Your task to perform on an android device: turn on priority inbox in the gmail app Image 0: 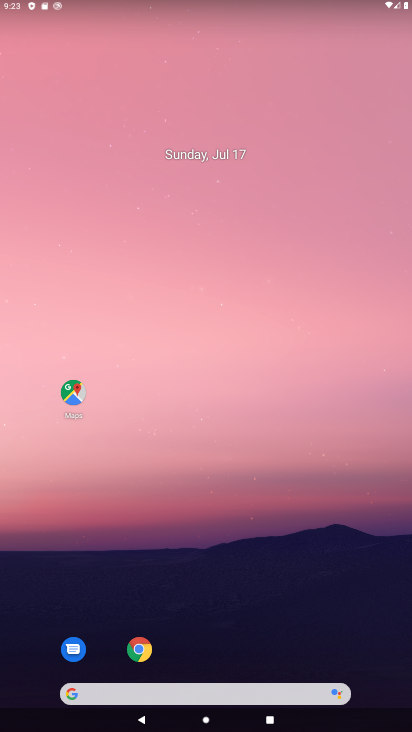
Step 0: drag from (49, 601) to (187, 228)
Your task to perform on an android device: turn on priority inbox in the gmail app Image 1: 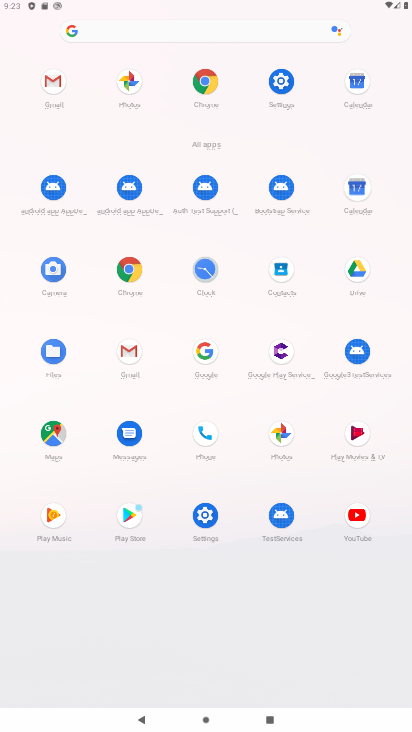
Step 1: click (121, 343)
Your task to perform on an android device: turn on priority inbox in the gmail app Image 2: 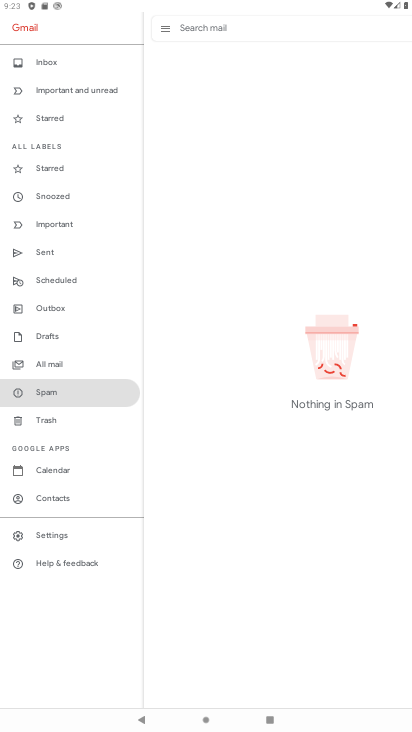
Step 2: click (75, 65)
Your task to perform on an android device: turn on priority inbox in the gmail app Image 3: 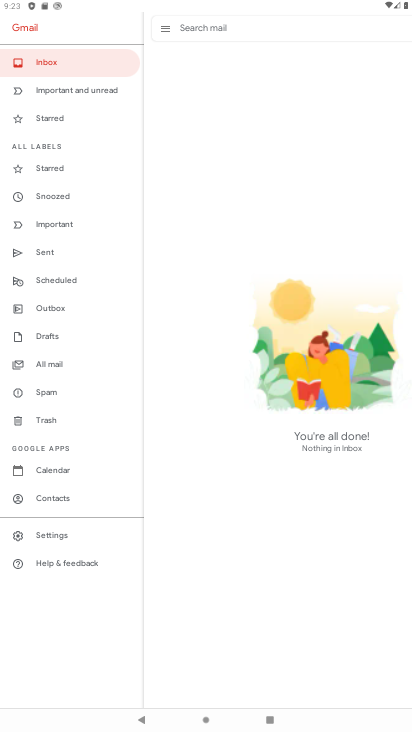
Step 3: click (86, 537)
Your task to perform on an android device: turn on priority inbox in the gmail app Image 4: 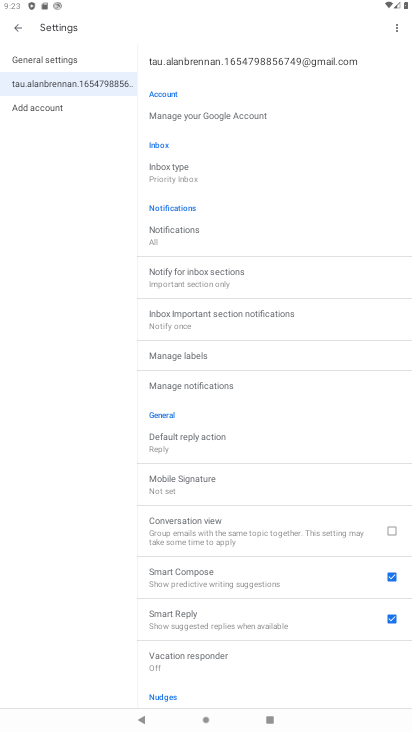
Step 4: task complete